Your task to perform on an android device: Is it going to rain tomorrow? Image 0: 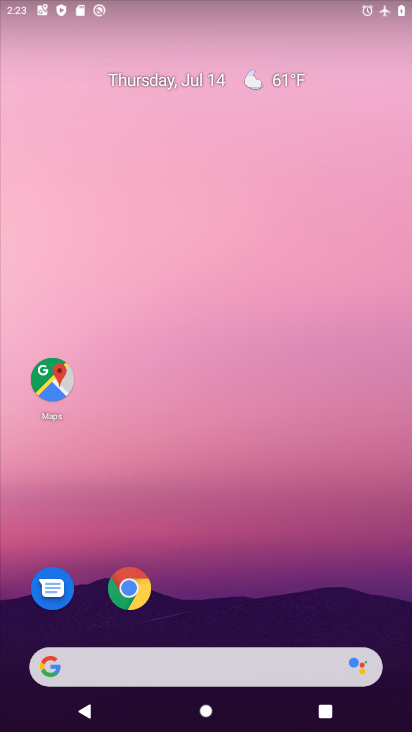
Step 0: click (125, 585)
Your task to perform on an android device: Is it going to rain tomorrow? Image 1: 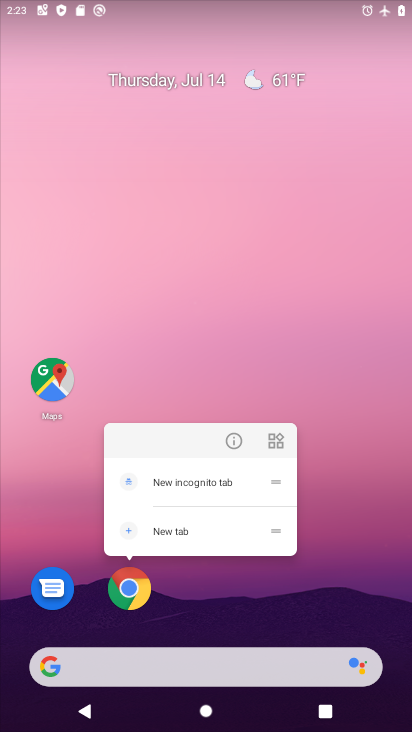
Step 1: click (326, 584)
Your task to perform on an android device: Is it going to rain tomorrow? Image 2: 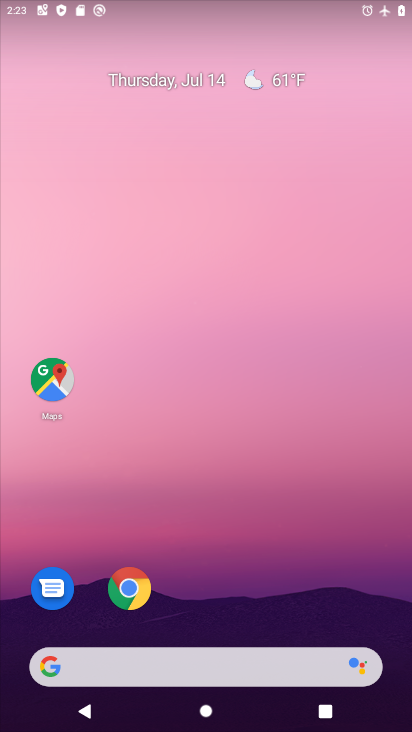
Step 2: drag from (268, 621) to (274, 202)
Your task to perform on an android device: Is it going to rain tomorrow? Image 3: 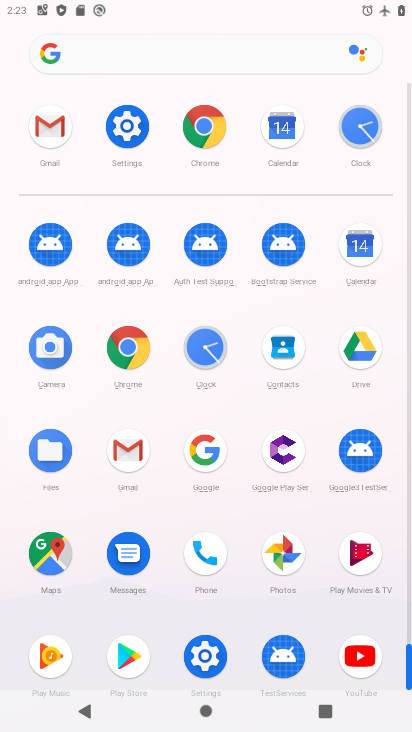
Step 3: click (192, 114)
Your task to perform on an android device: Is it going to rain tomorrow? Image 4: 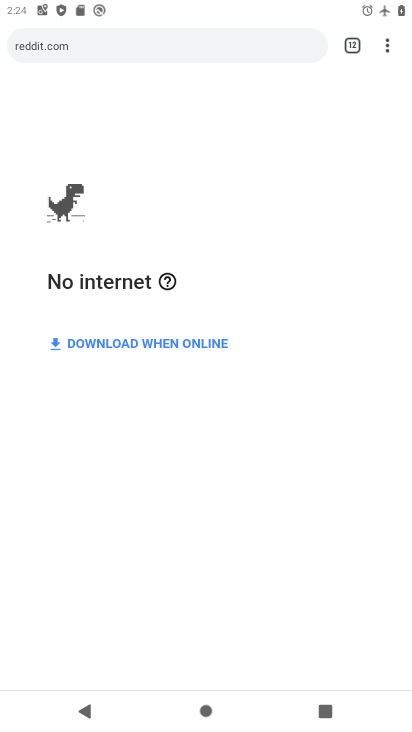
Step 4: click (390, 36)
Your task to perform on an android device: Is it going to rain tomorrow? Image 5: 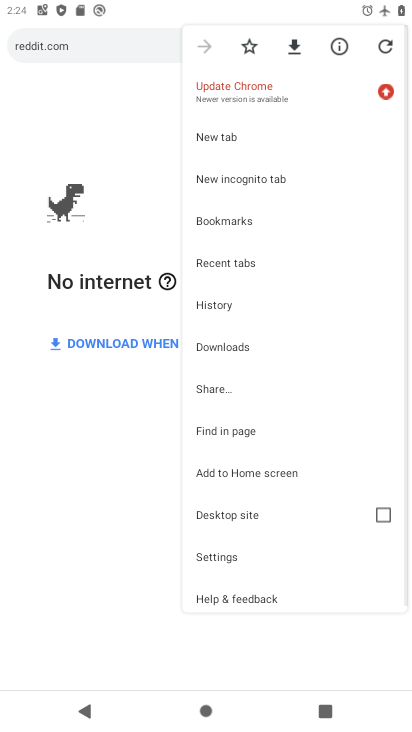
Step 5: click (216, 140)
Your task to perform on an android device: Is it going to rain tomorrow? Image 6: 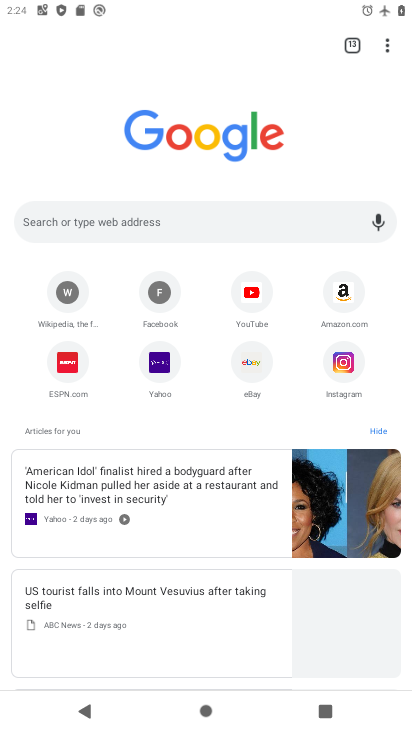
Step 6: click (114, 218)
Your task to perform on an android device: Is it going to rain tomorrow? Image 7: 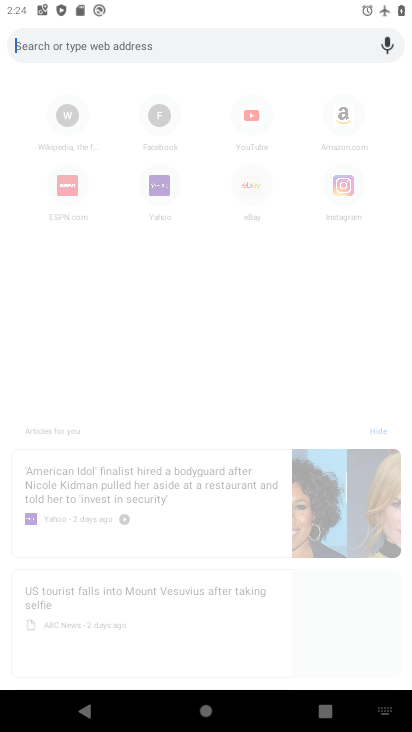
Step 7: type "Is it going to rain tomorrow? "
Your task to perform on an android device: Is it going to rain tomorrow? Image 8: 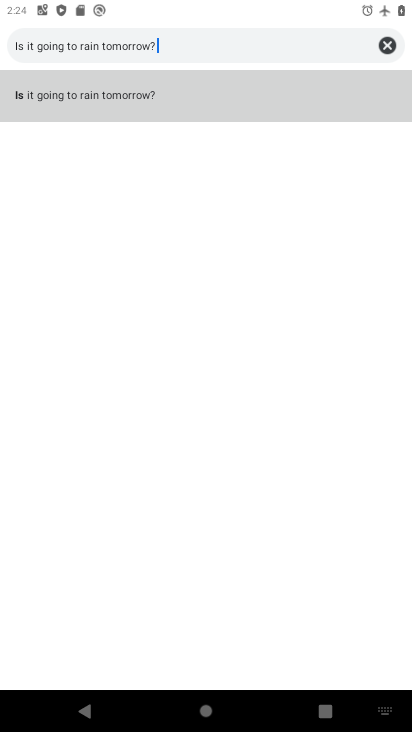
Step 8: click (182, 81)
Your task to perform on an android device: Is it going to rain tomorrow? Image 9: 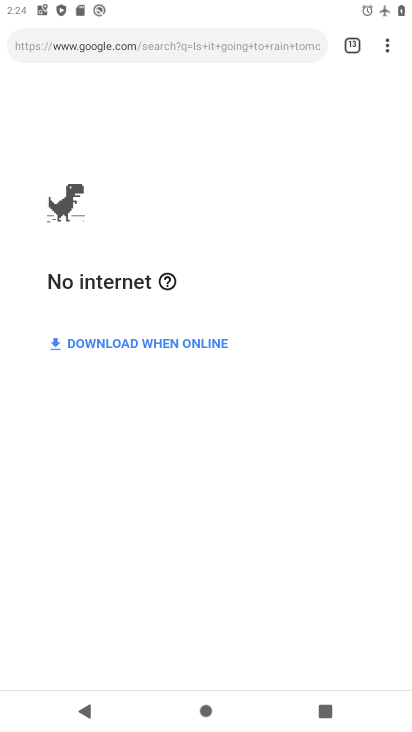
Step 9: task complete